Your task to perform on an android device: Find coffee shops on Maps Image 0: 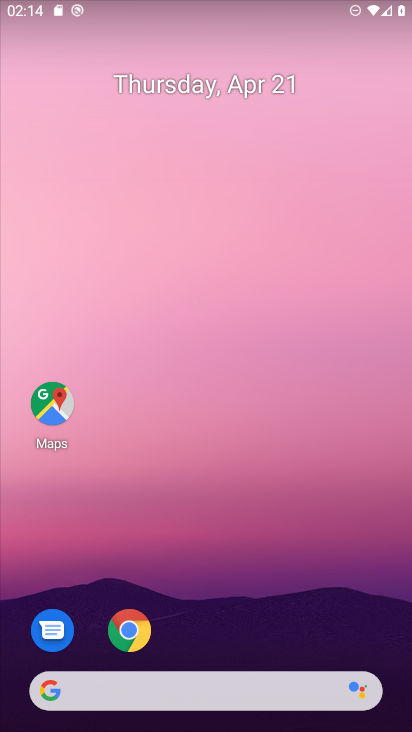
Step 0: click (48, 405)
Your task to perform on an android device: Find coffee shops on Maps Image 1: 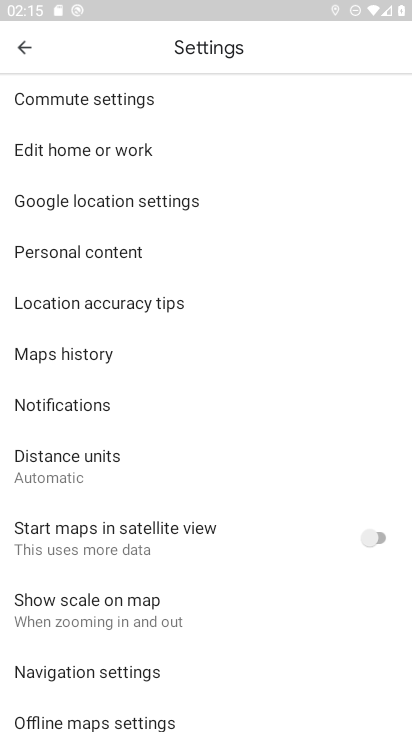
Step 1: press back button
Your task to perform on an android device: Find coffee shops on Maps Image 2: 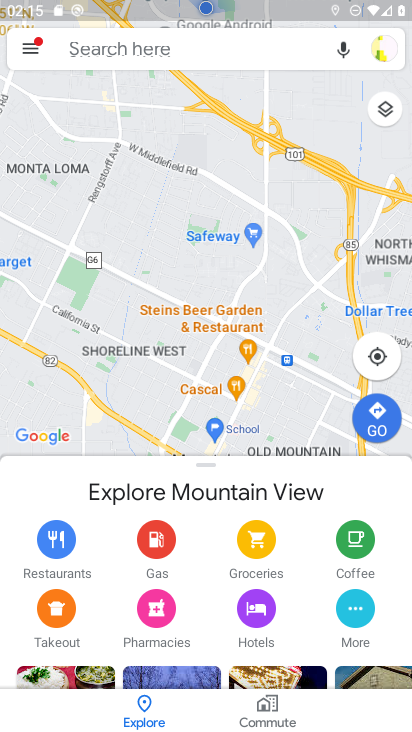
Step 2: click (171, 53)
Your task to perform on an android device: Find coffee shops on Maps Image 3: 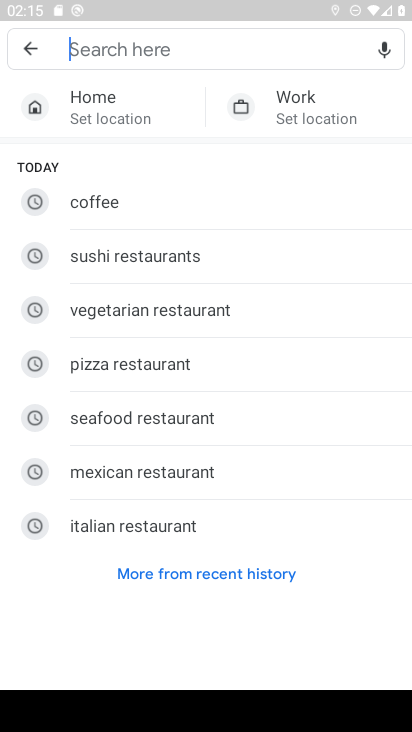
Step 3: click (131, 205)
Your task to perform on an android device: Find coffee shops on Maps Image 4: 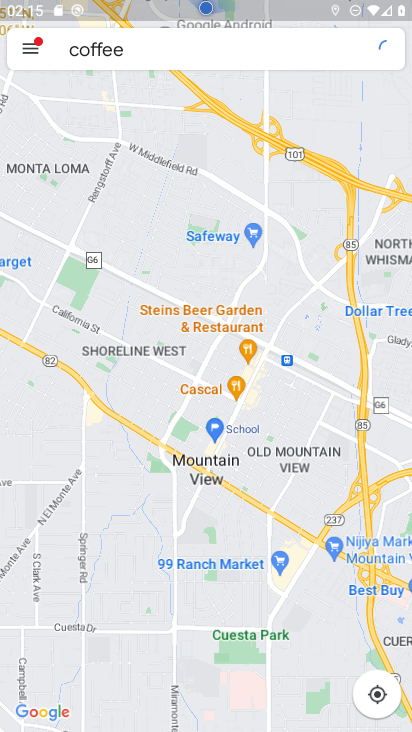
Step 4: task complete